Your task to perform on an android device: Open settings Image 0: 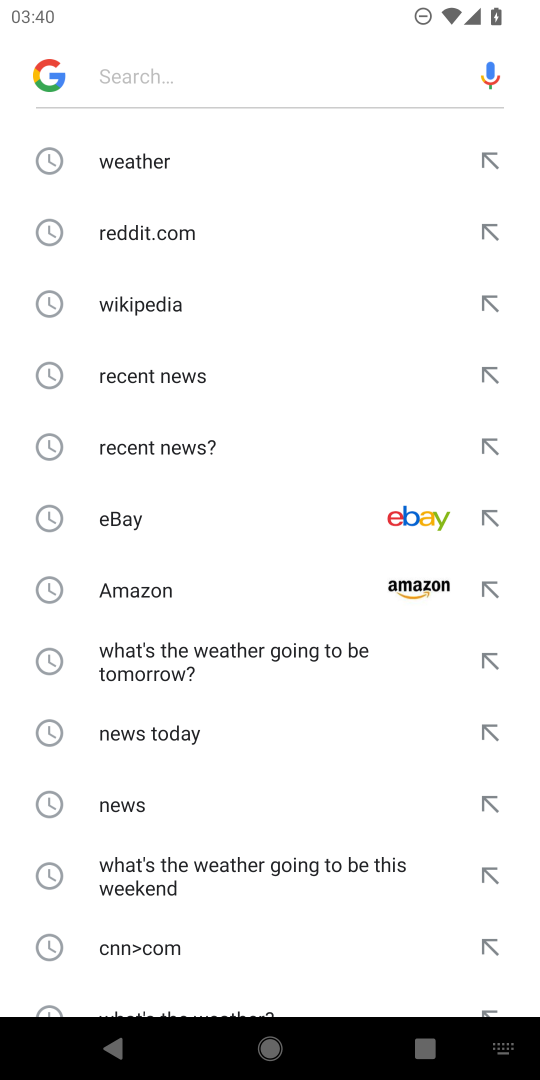
Step 0: press home button
Your task to perform on an android device: Open settings Image 1: 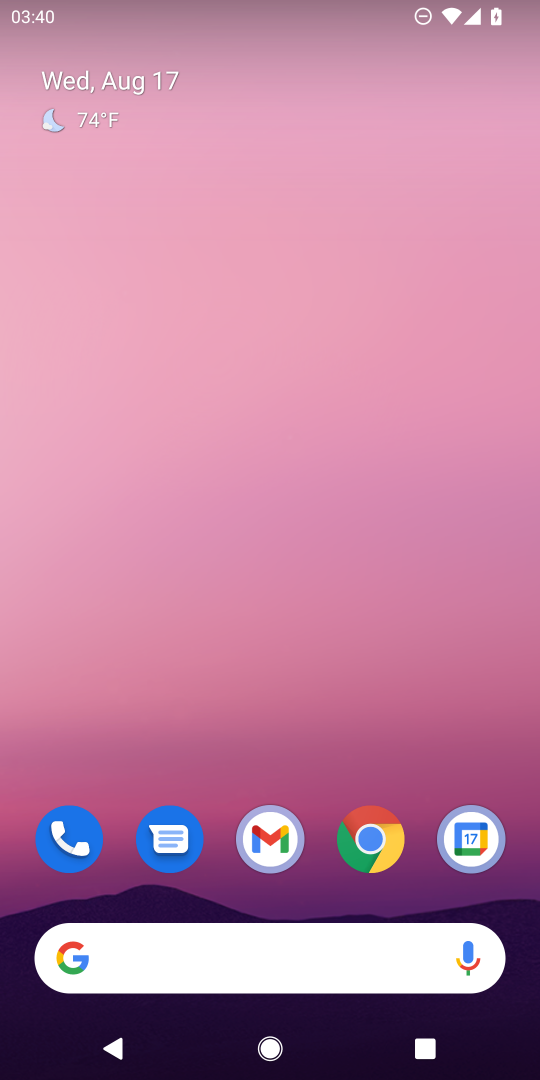
Step 1: drag from (317, 909) to (316, 173)
Your task to perform on an android device: Open settings Image 2: 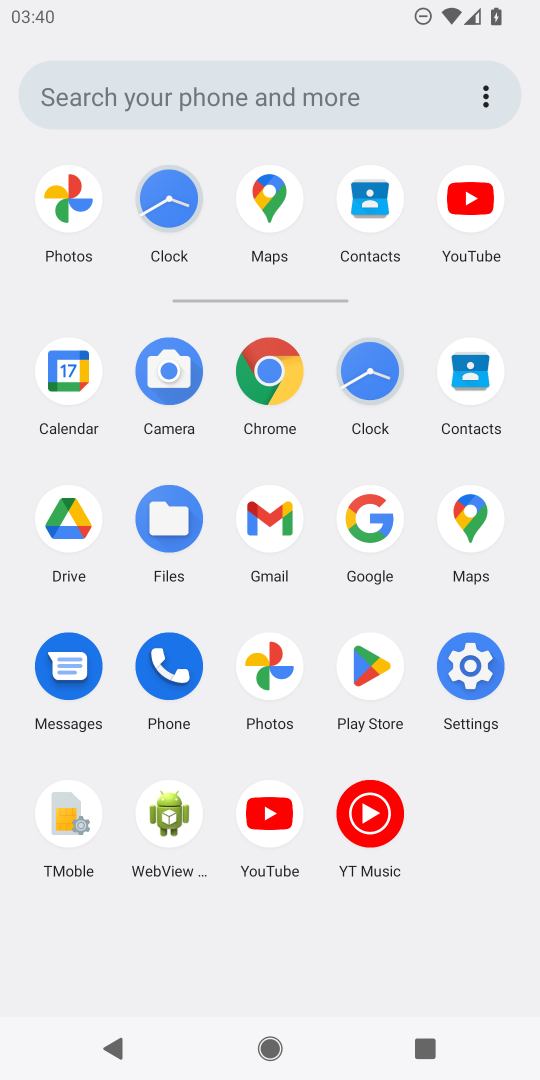
Step 2: click (460, 665)
Your task to perform on an android device: Open settings Image 3: 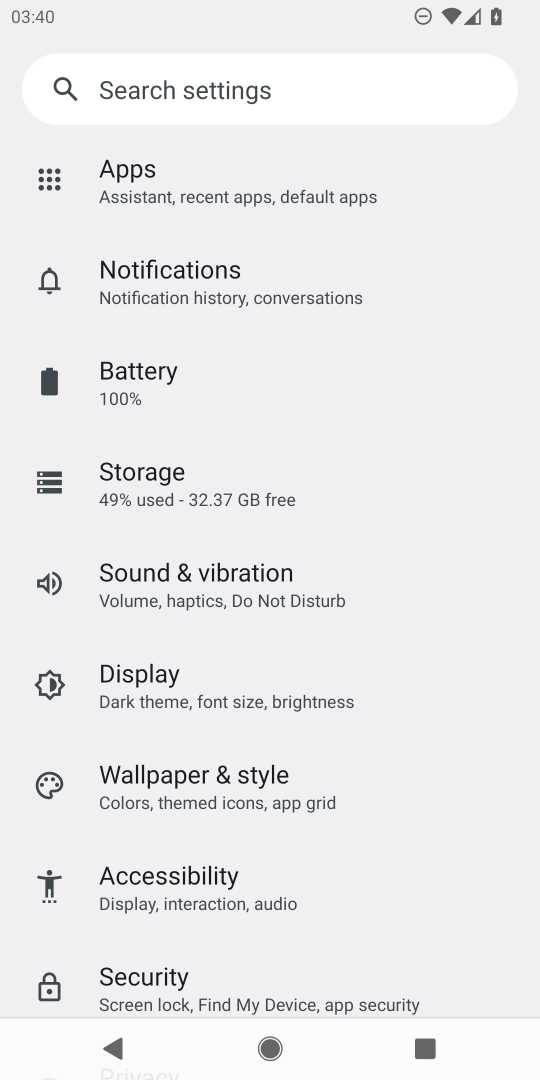
Step 3: task complete